Your task to perform on an android device: turn off notifications settings in the gmail app Image 0: 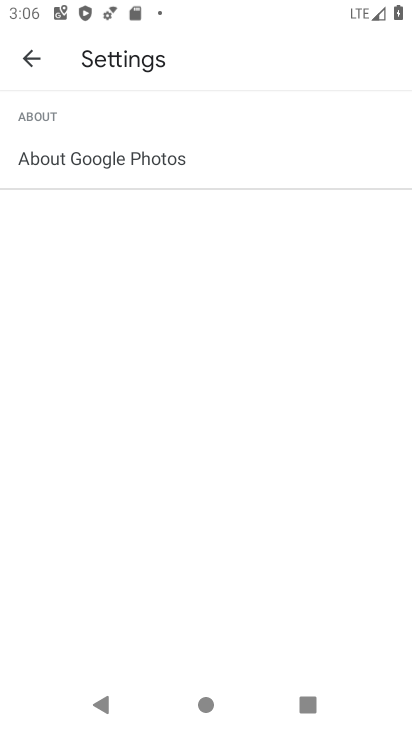
Step 0: press home button
Your task to perform on an android device: turn off notifications settings in the gmail app Image 1: 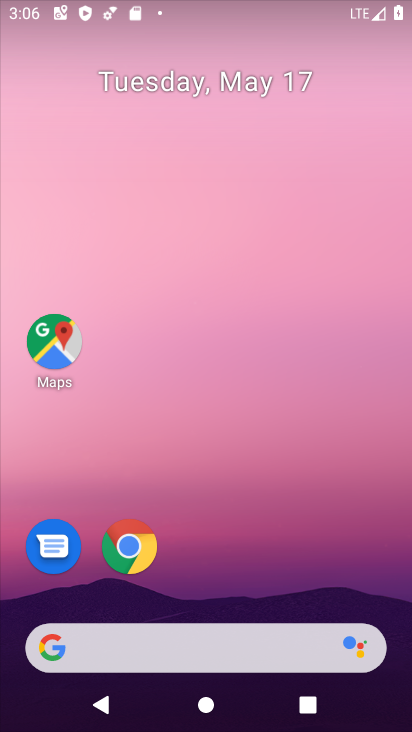
Step 1: drag from (315, 517) to (303, 68)
Your task to perform on an android device: turn off notifications settings in the gmail app Image 2: 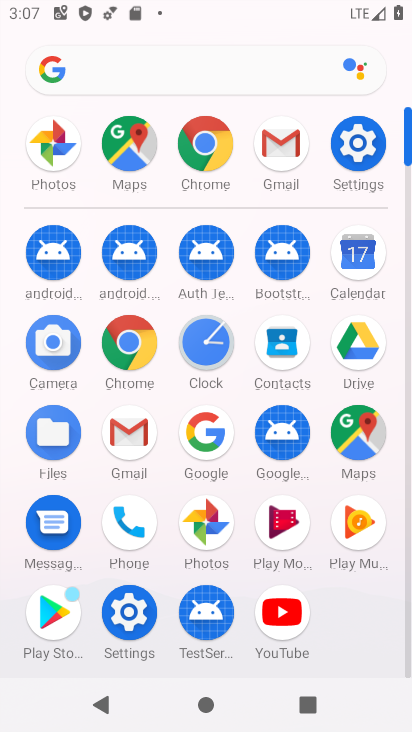
Step 2: click (140, 441)
Your task to perform on an android device: turn off notifications settings in the gmail app Image 3: 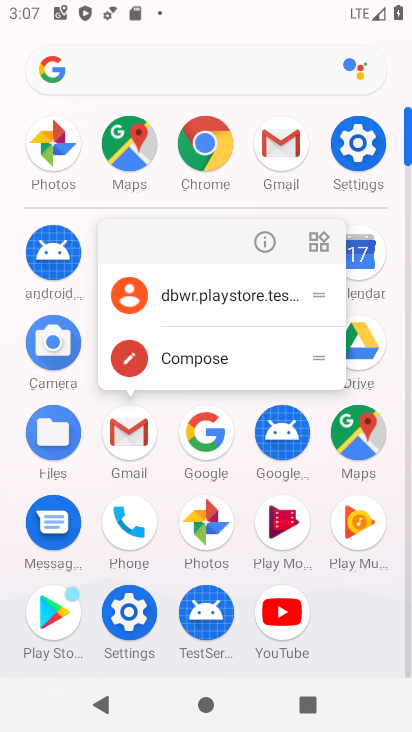
Step 3: click (264, 238)
Your task to perform on an android device: turn off notifications settings in the gmail app Image 4: 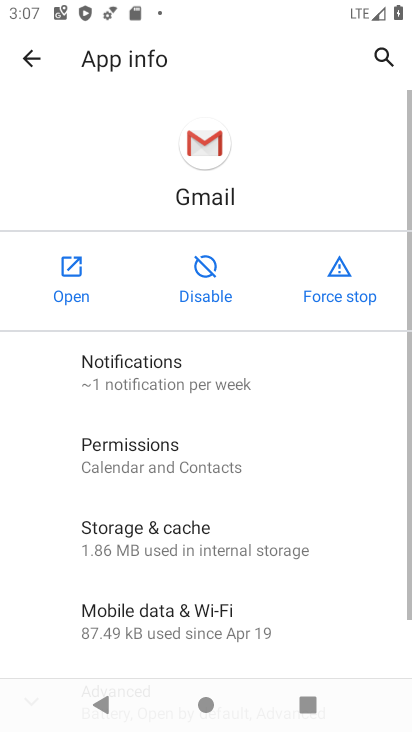
Step 4: click (172, 380)
Your task to perform on an android device: turn off notifications settings in the gmail app Image 5: 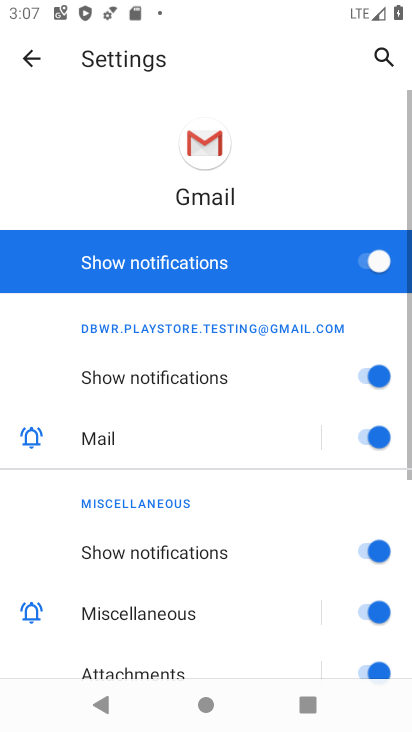
Step 5: click (367, 241)
Your task to perform on an android device: turn off notifications settings in the gmail app Image 6: 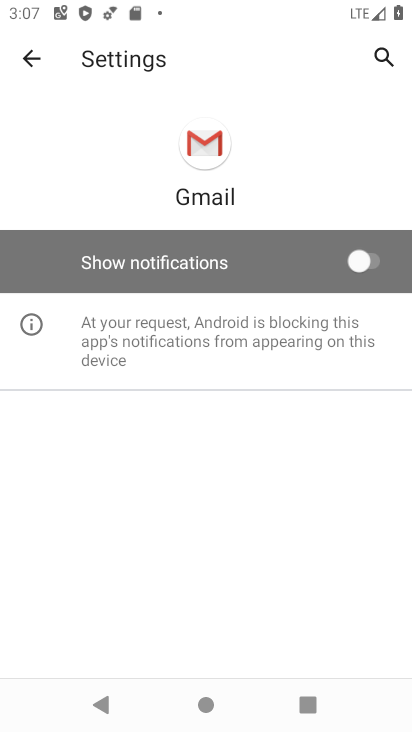
Step 6: task complete